Your task to perform on an android device: manage bookmarks in the chrome app Image 0: 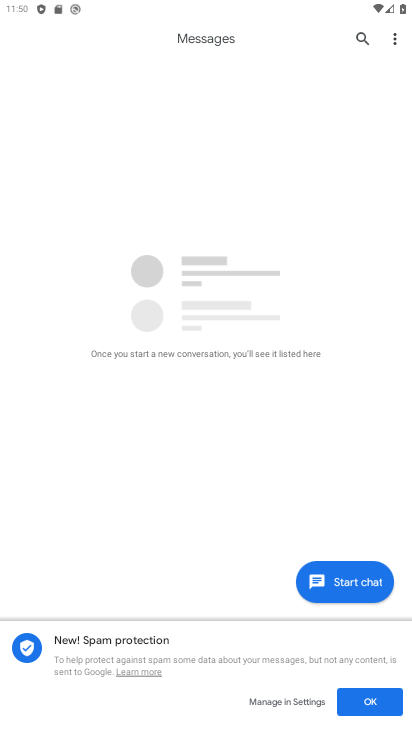
Step 0: press home button
Your task to perform on an android device: manage bookmarks in the chrome app Image 1: 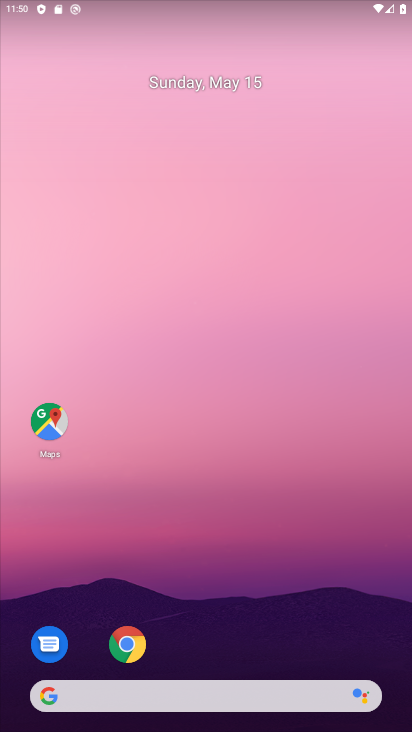
Step 1: click (136, 642)
Your task to perform on an android device: manage bookmarks in the chrome app Image 2: 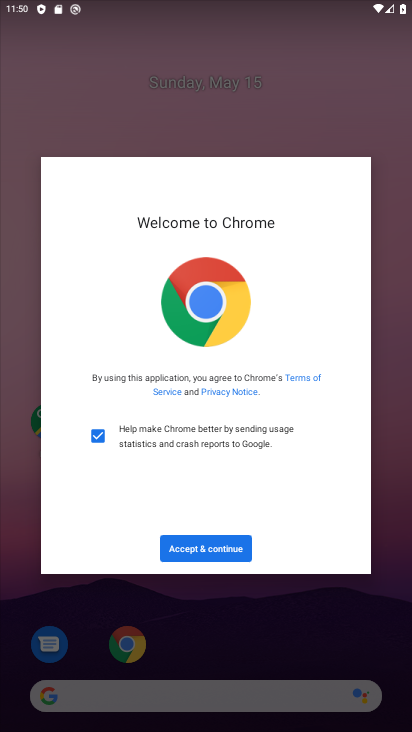
Step 2: click (193, 540)
Your task to perform on an android device: manage bookmarks in the chrome app Image 3: 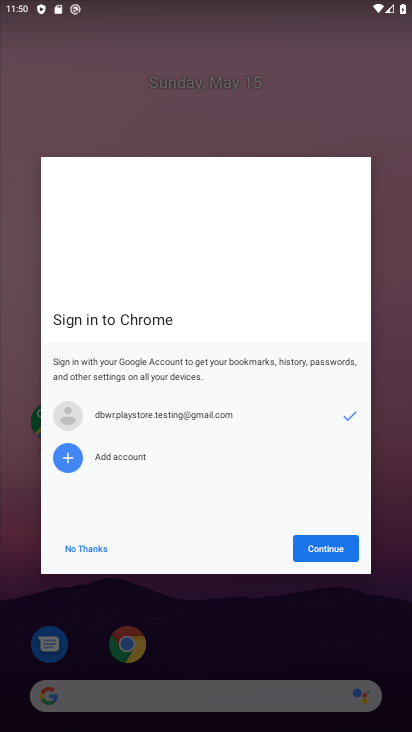
Step 3: click (321, 548)
Your task to perform on an android device: manage bookmarks in the chrome app Image 4: 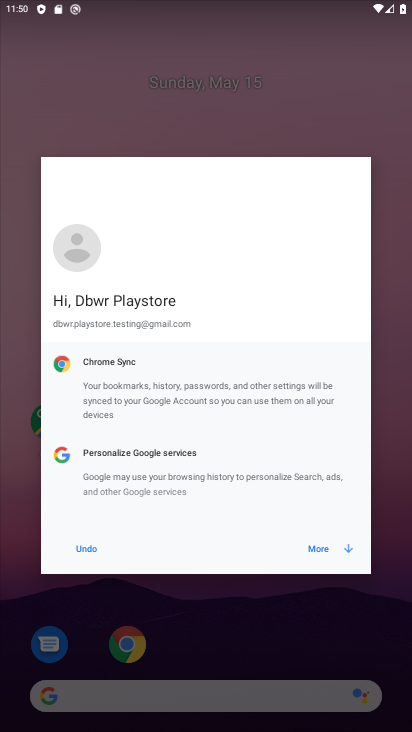
Step 4: click (321, 550)
Your task to perform on an android device: manage bookmarks in the chrome app Image 5: 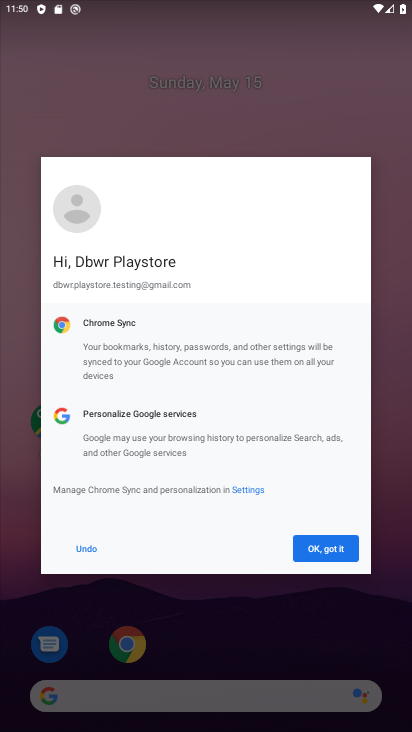
Step 5: click (319, 550)
Your task to perform on an android device: manage bookmarks in the chrome app Image 6: 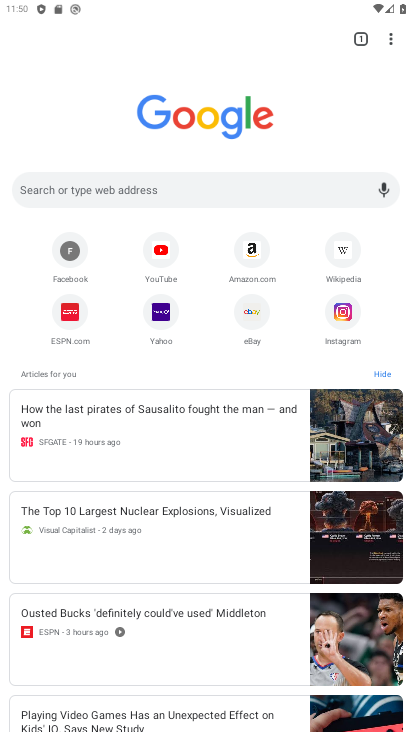
Step 6: click (394, 37)
Your task to perform on an android device: manage bookmarks in the chrome app Image 7: 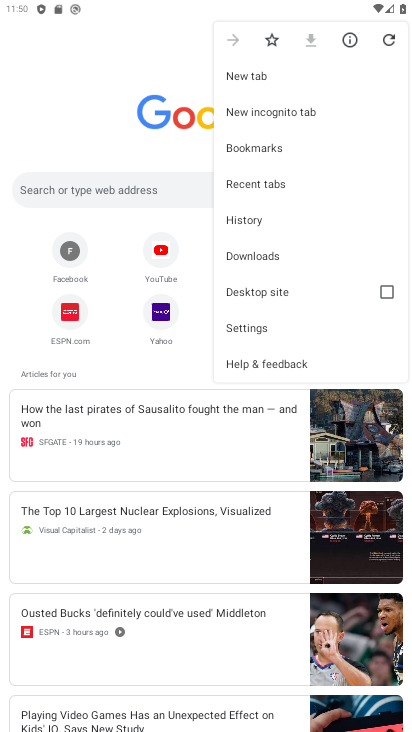
Step 7: click (255, 151)
Your task to perform on an android device: manage bookmarks in the chrome app Image 8: 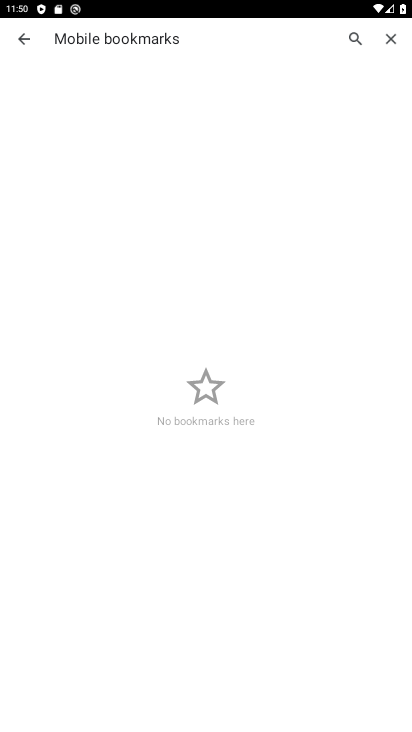
Step 8: click (194, 555)
Your task to perform on an android device: manage bookmarks in the chrome app Image 9: 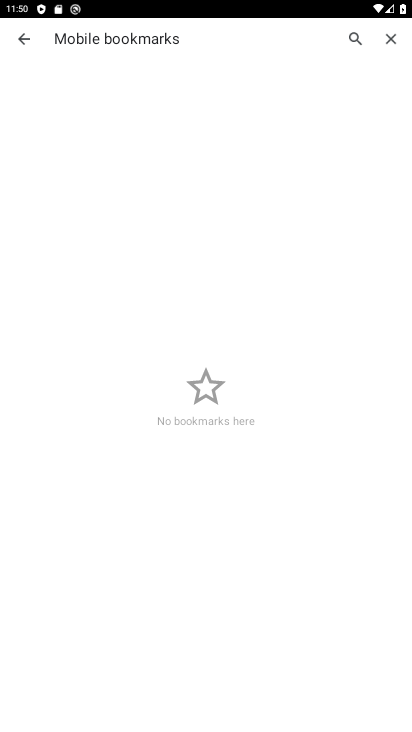
Step 9: task complete